Your task to perform on an android device: Open the web browser Image 0: 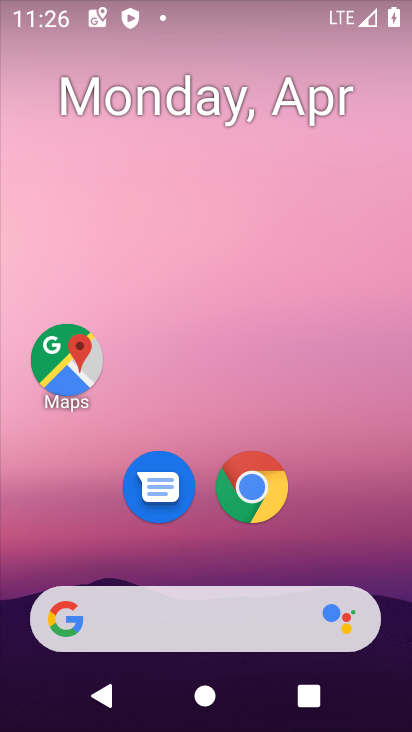
Step 0: drag from (393, 527) to (287, 189)
Your task to perform on an android device: Open the web browser Image 1: 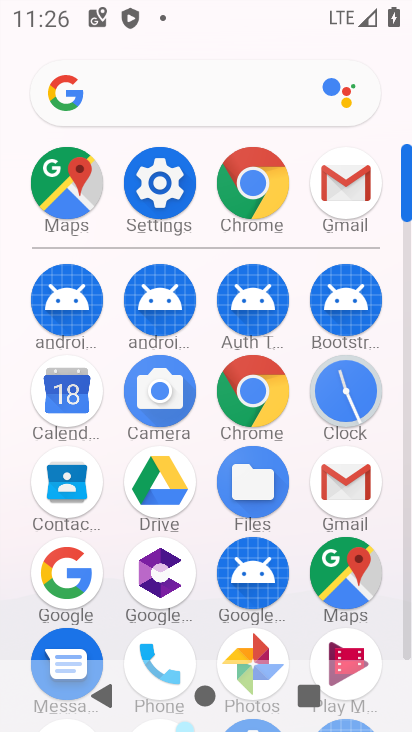
Step 1: click (258, 179)
Your task to perform on an android device: Open the web browser Image 2: 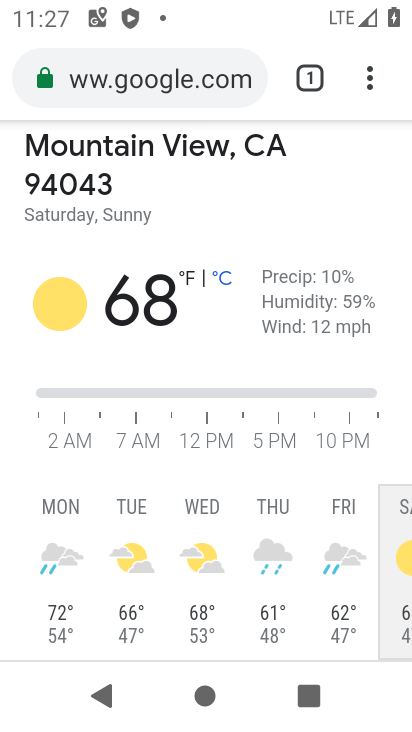
Step 2: task complete